Your task to perform on an android device: install app "Lyft - Rideshare, Bikes, Scooters & Transit" Image 0: 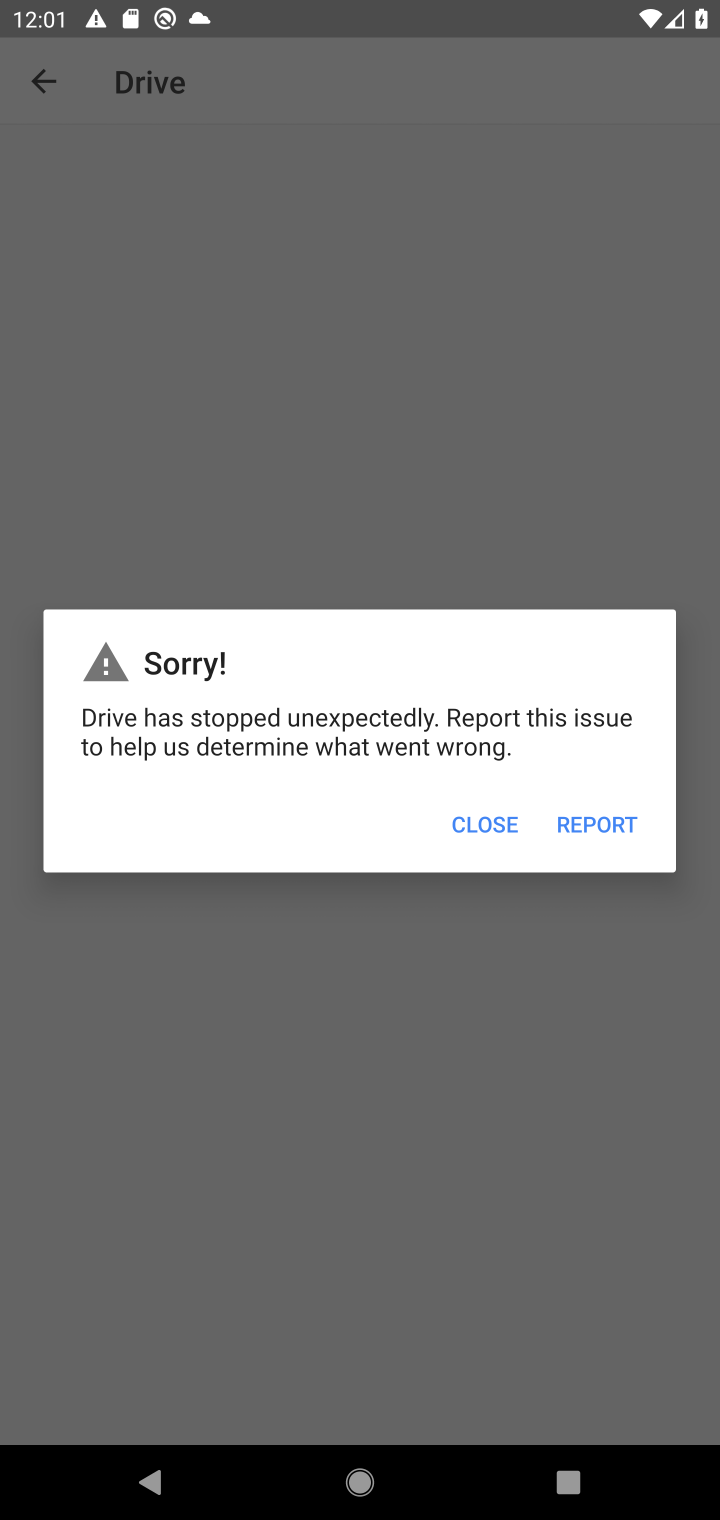
Step 0: press home button
Your task to perform on an android device: install app "Lyft - Rideshare, Bikes, Scooters & Transit" Image 1: 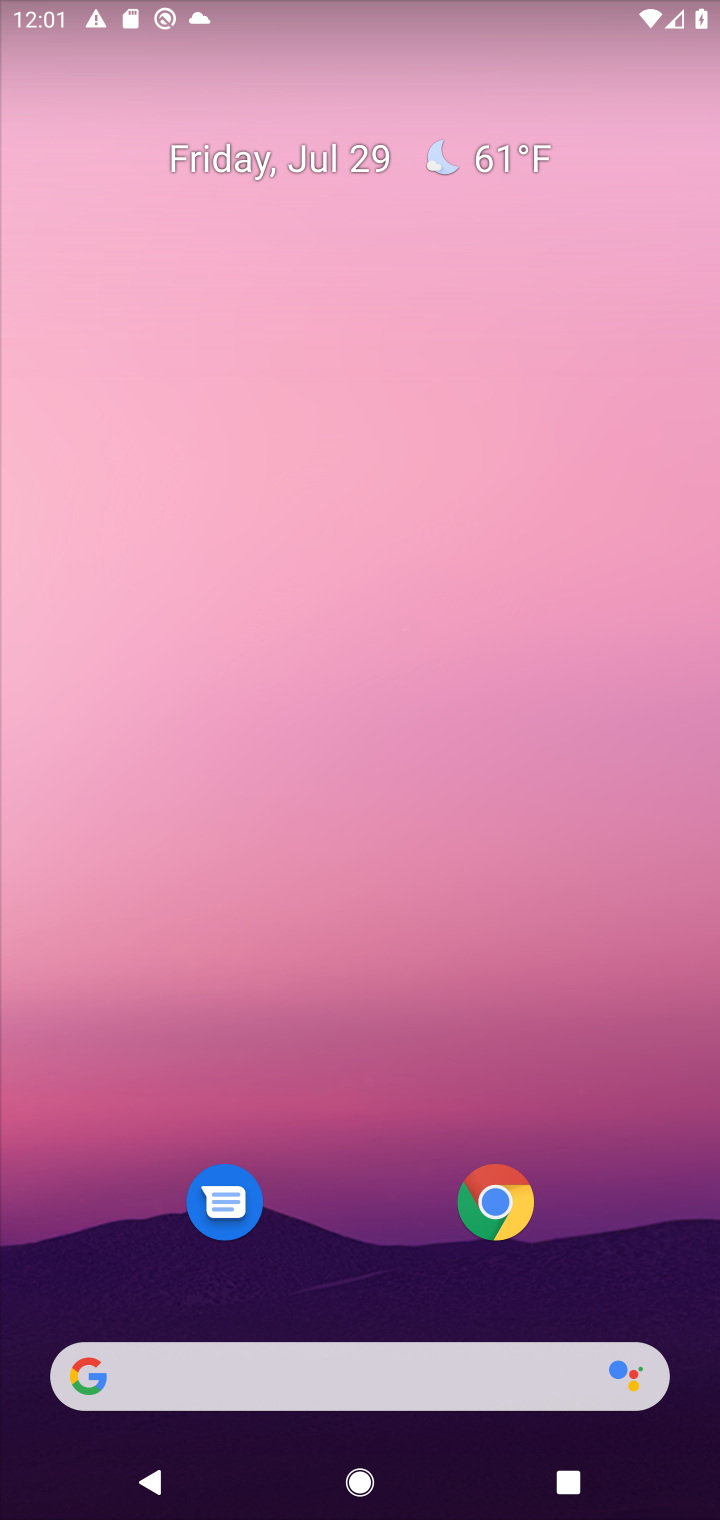
Step 1: click (386, 1369)
Your task to perform on an android device: install app "Lyft - Rideshare, Bikes, Scooters & Transit" Image 2: 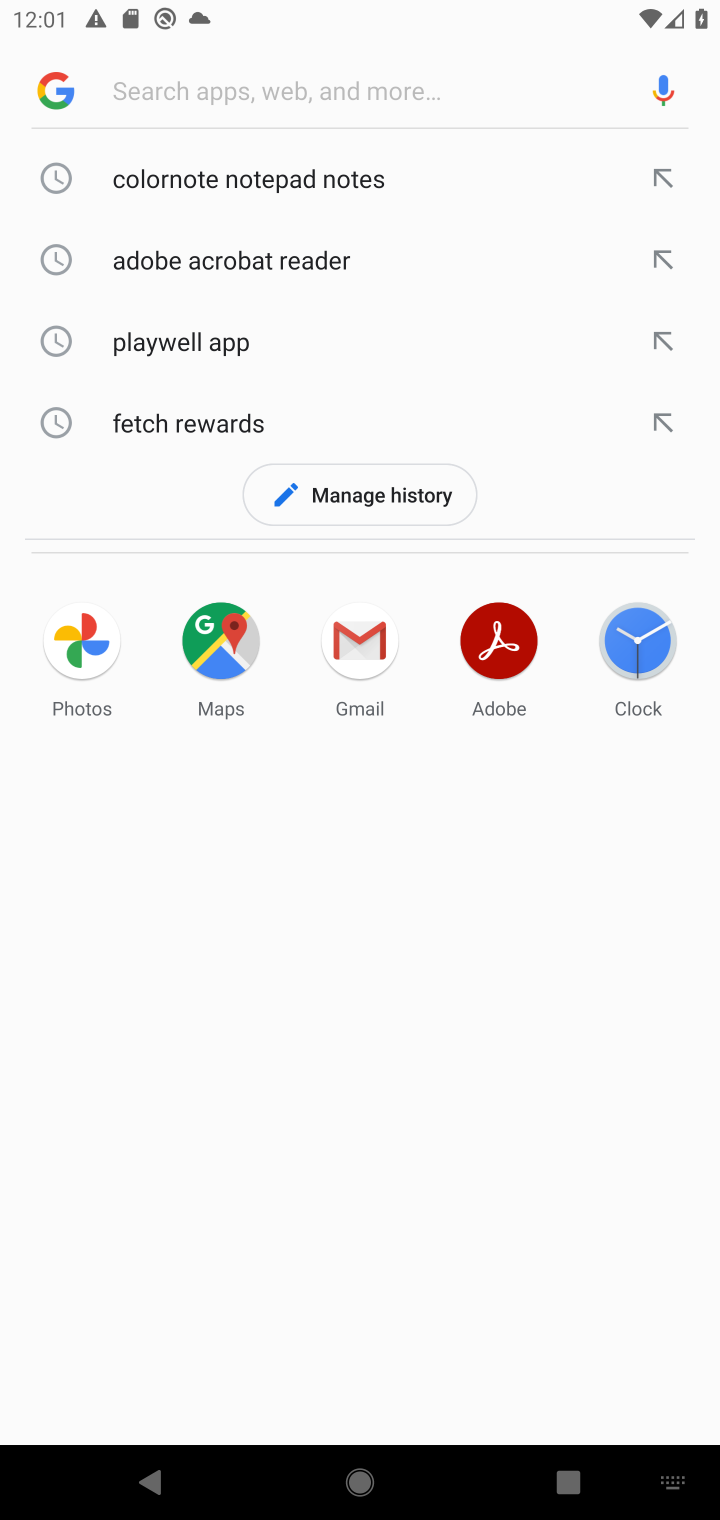
Step 2: type "lyft"
Your task to perform on an android device: install app "Lyft - Rideshare, Bikes, Scooters & Transit" Image 3: 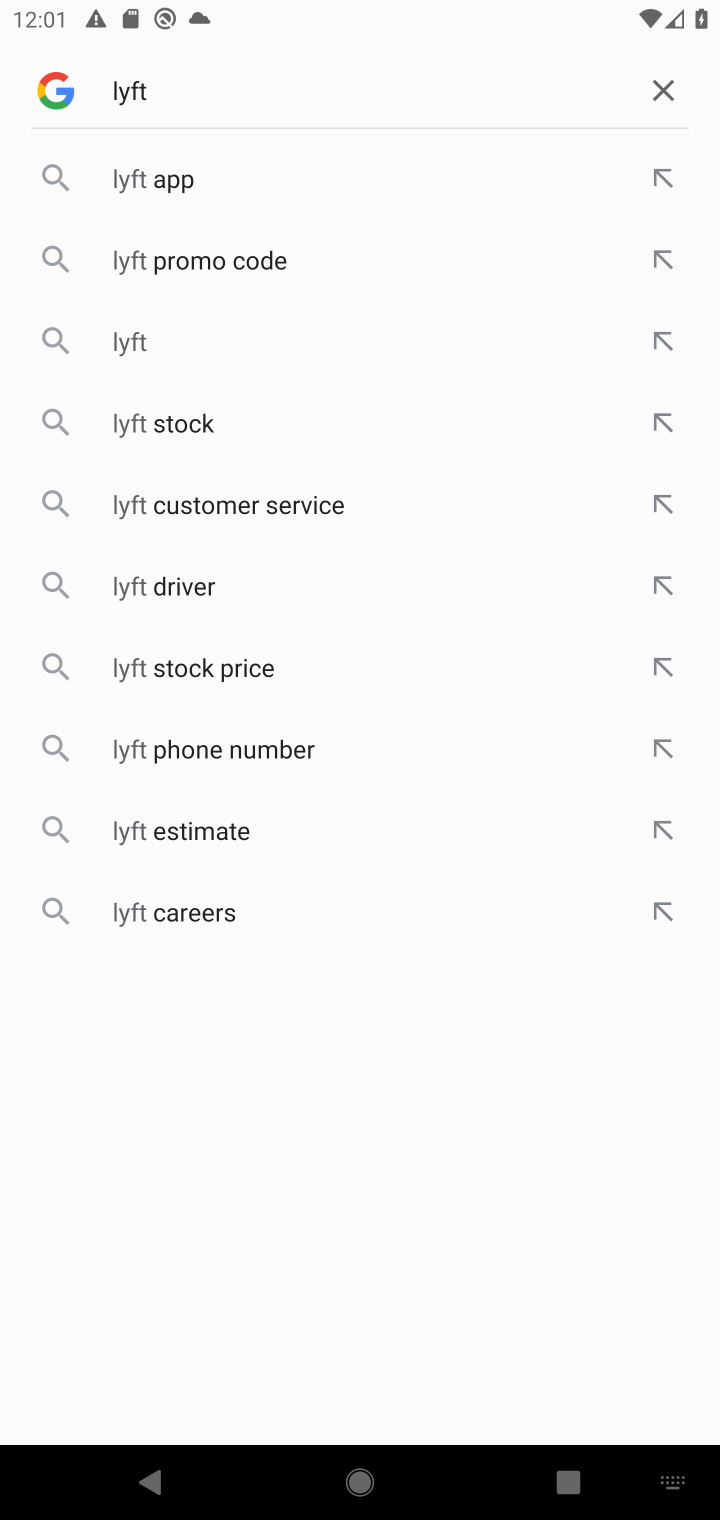
Step 3: click (407, 199)
Your task to perform on an android device: install app "Lyft - Rideshare, Bikes, Scooters & Transit" Image 4: 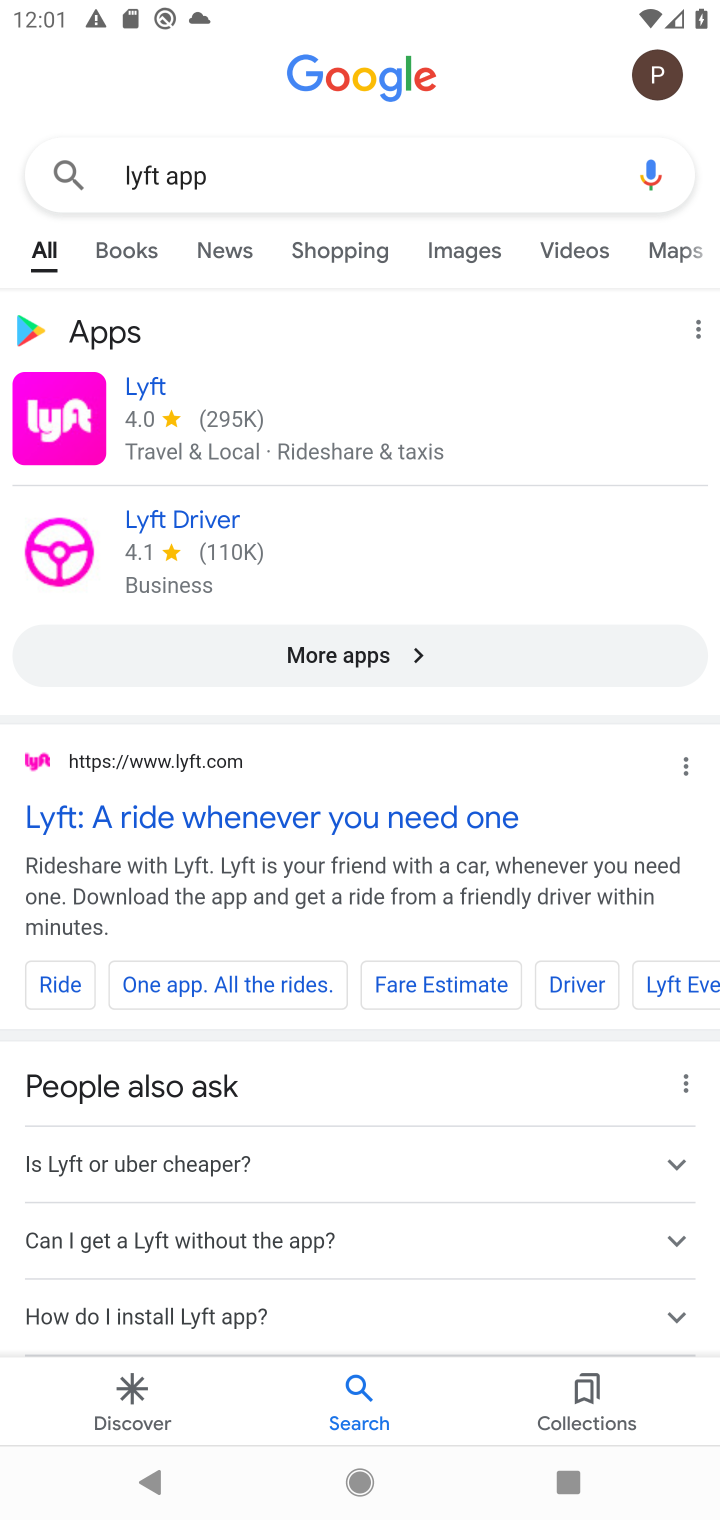
Step 4: drag from (483, 1163) to (458, 326)
Your task to perform on an android device: install app "Lyft - Rideshare, Bikes, Scooters & Transit" Image 5: 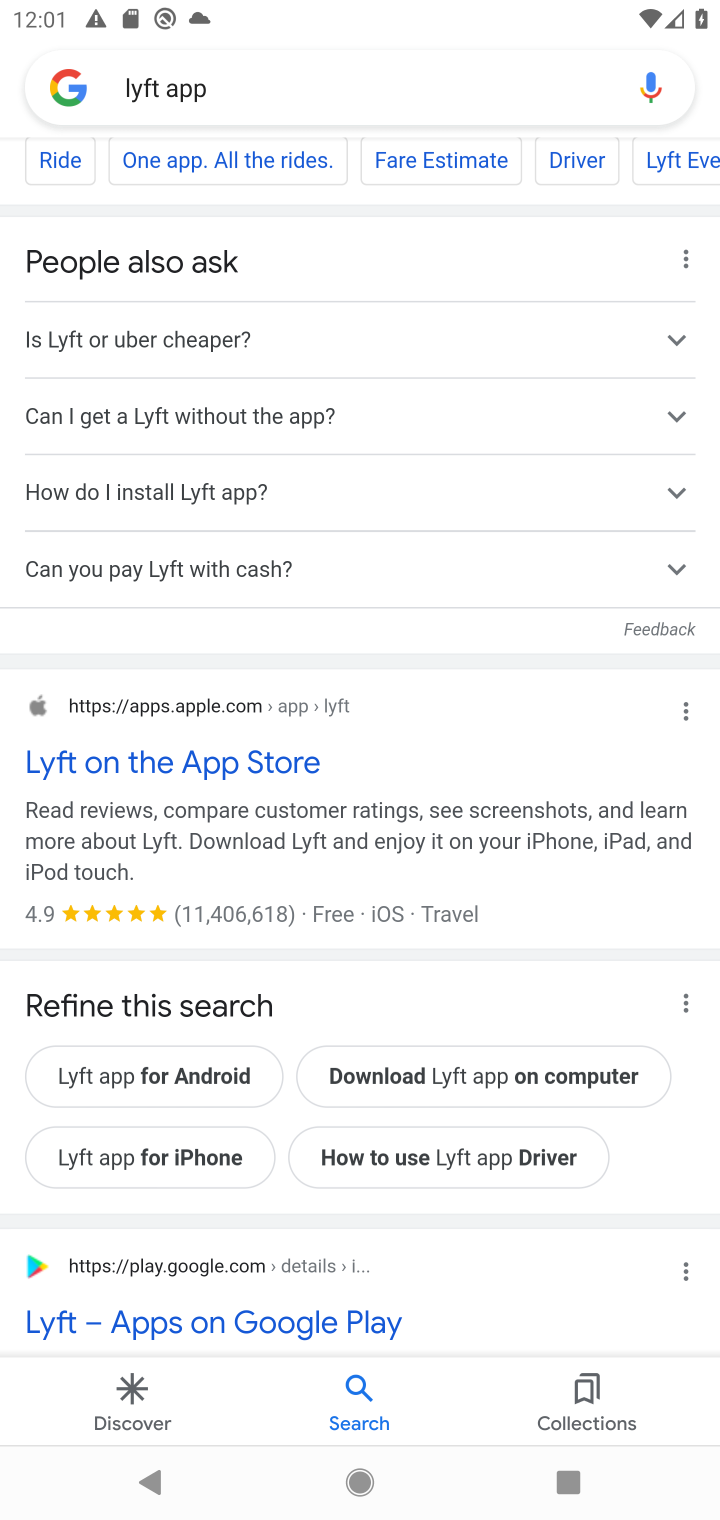
Step 5: drag from (455, 1273) to (333, 543)
Your task to perform on an android device: install app "Lyft - Rideshare, Bikes, Scooters & Transit" Image 6: 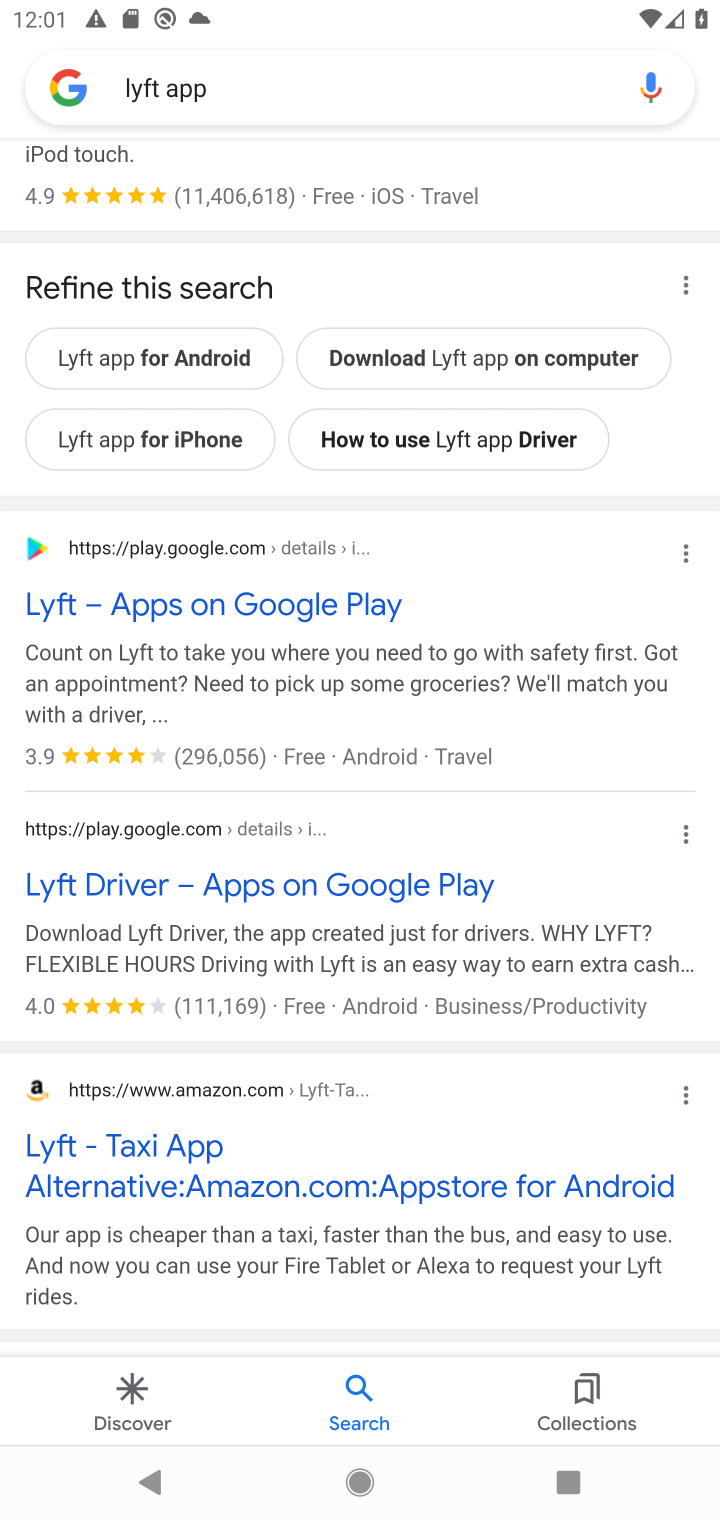
Step 6: drag from (480, 1053) to (454, 580)
Your task to perform on an android device: install app "Lyft - Rideshare, Bikes, Scooters & Transit" Image 7: 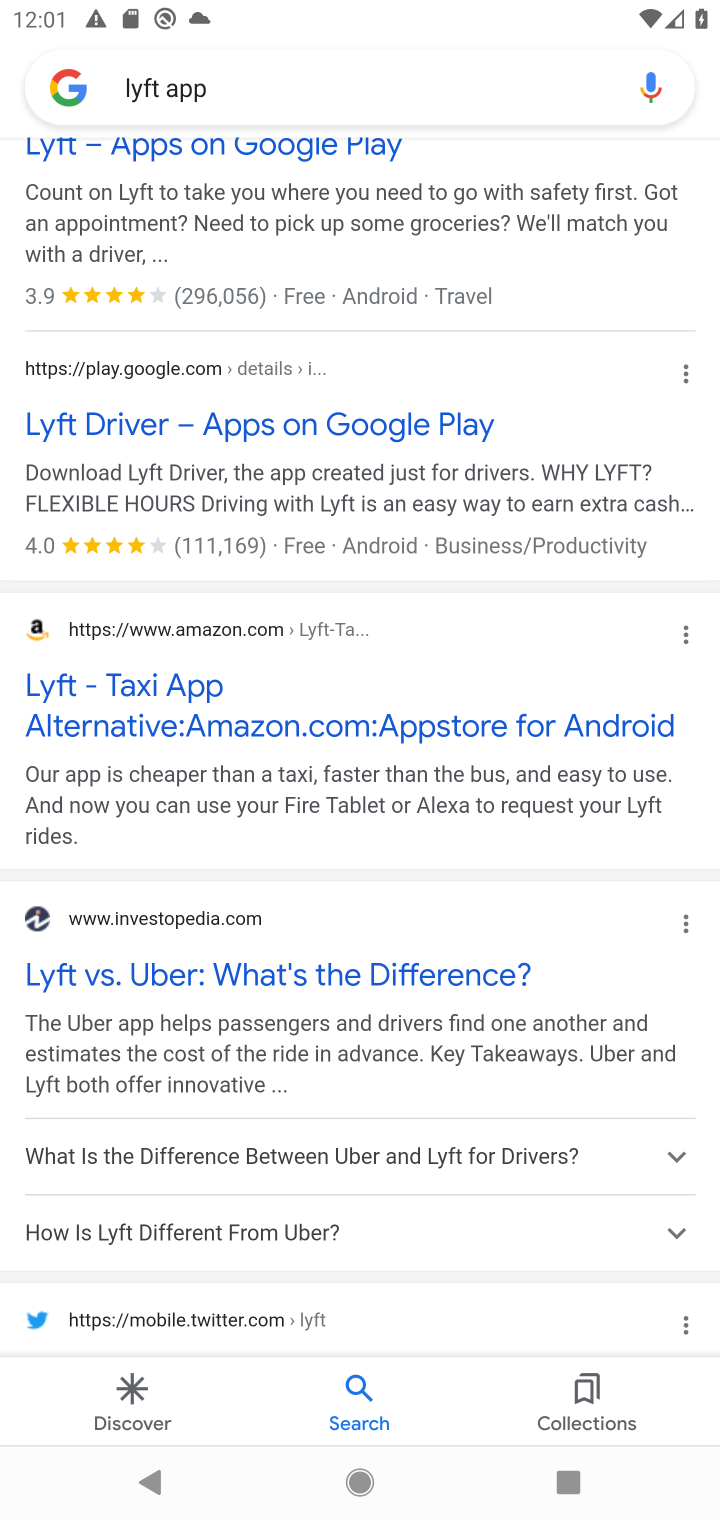
Step 7: click (328, 430)
Your task to perform on an android device: install app "Lyft - Rideshare, Bikes, Scooters & Transit" Image 8: 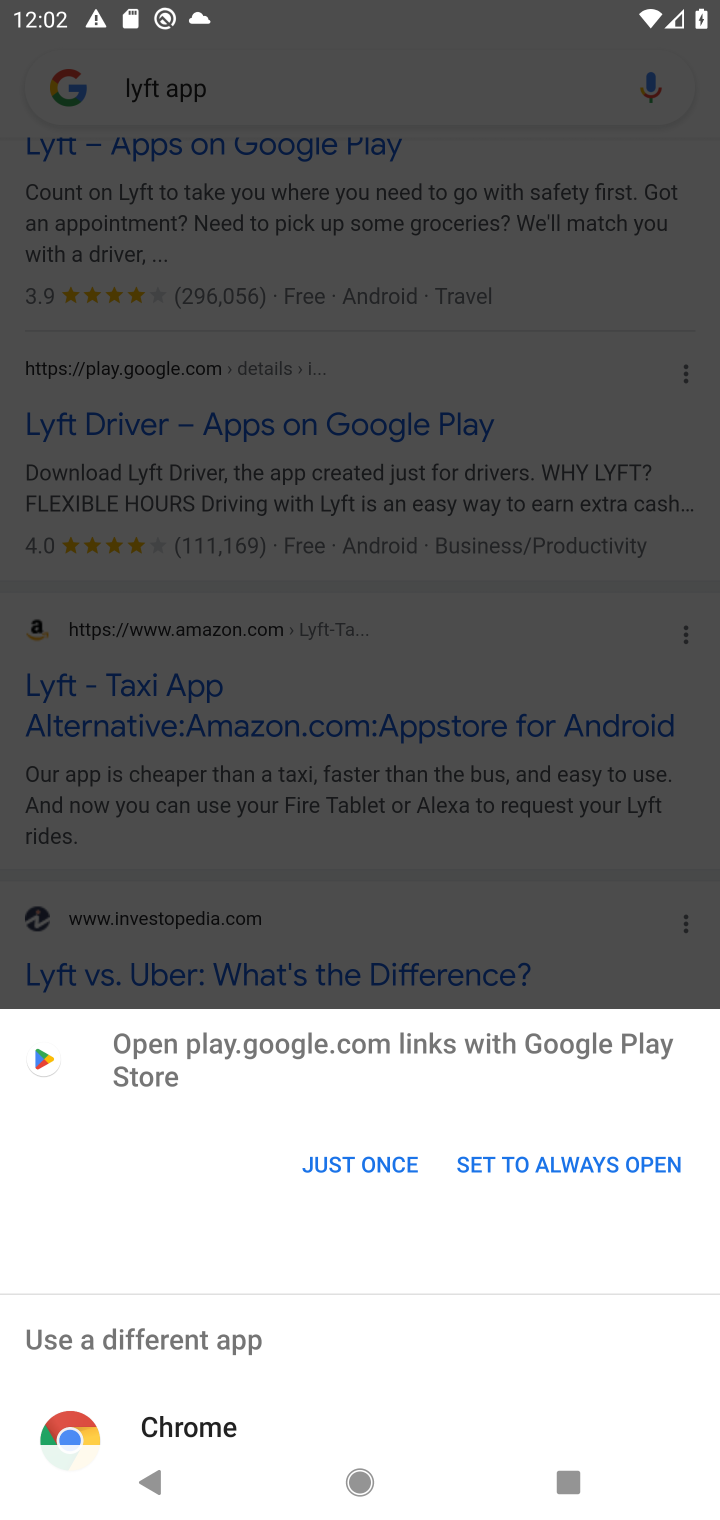
Step 8: click (382, 1159)
Your task to perform on an android device: install app "Lyft - Rideshare, Bikes, Scooters & Transit" Image 9: 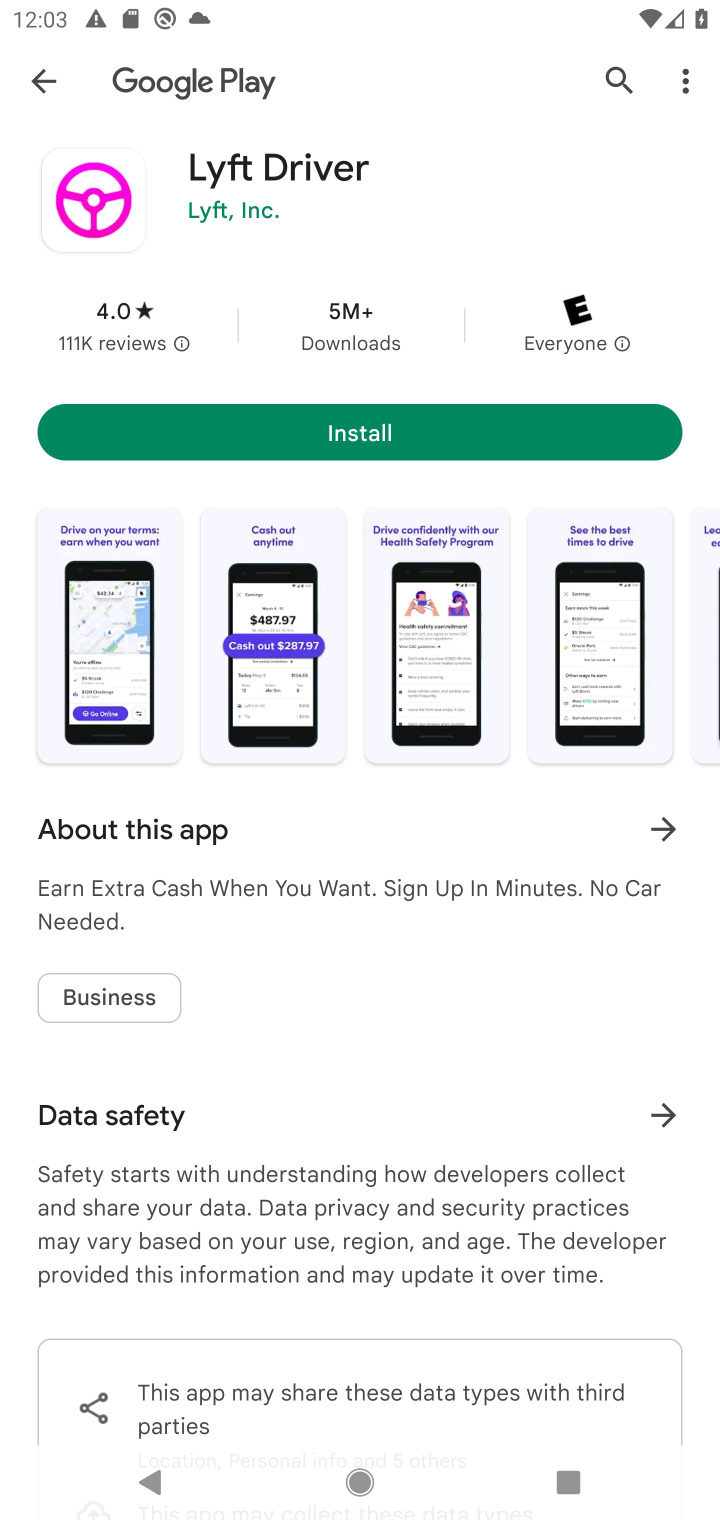
Step 9: click (448, 443)
Your task to perform on an android device: install app "Lyft - Rideshare, Bikes, Scooters & Transit" Image 10: 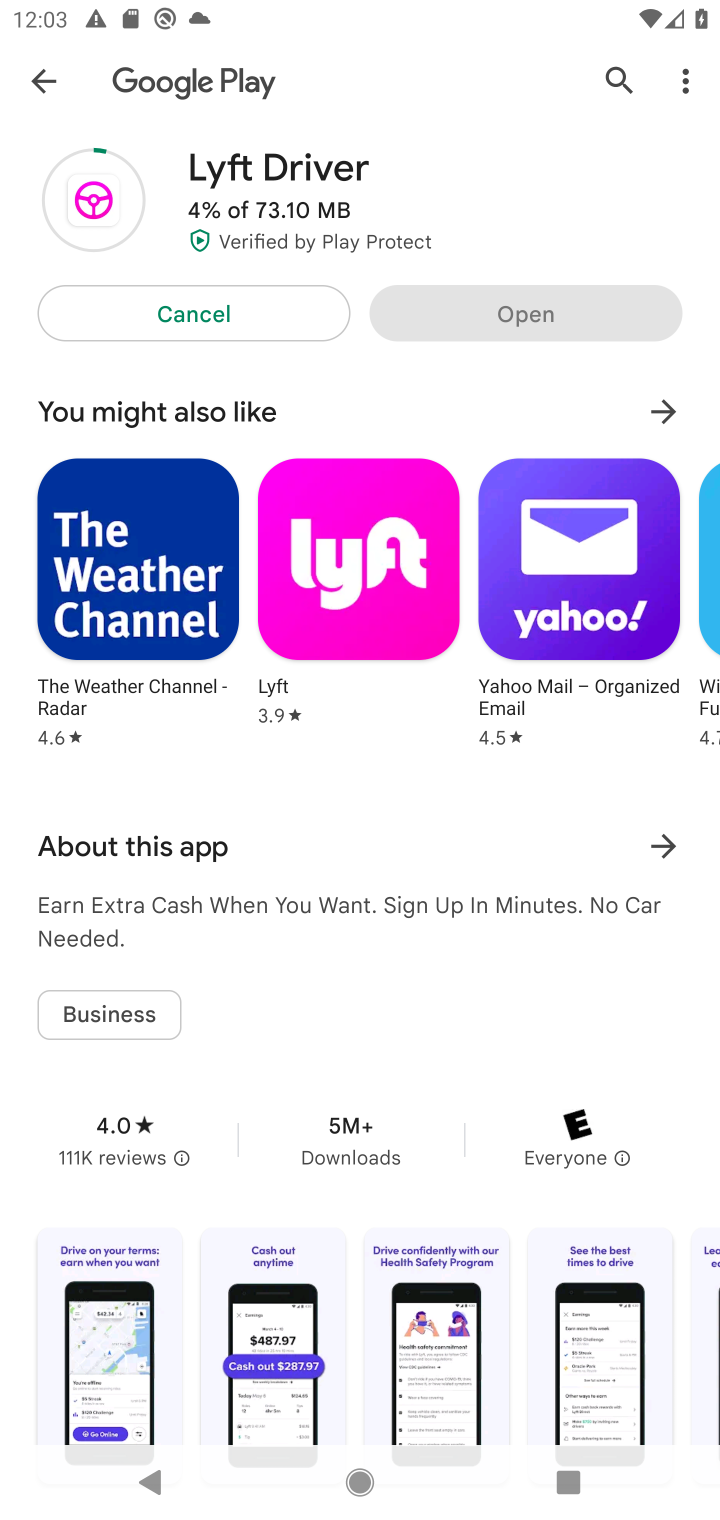
Step 10: task complete